Your task to perform on an android device: Add dell xps to the cart on ebay, then select checkout. Image 0: 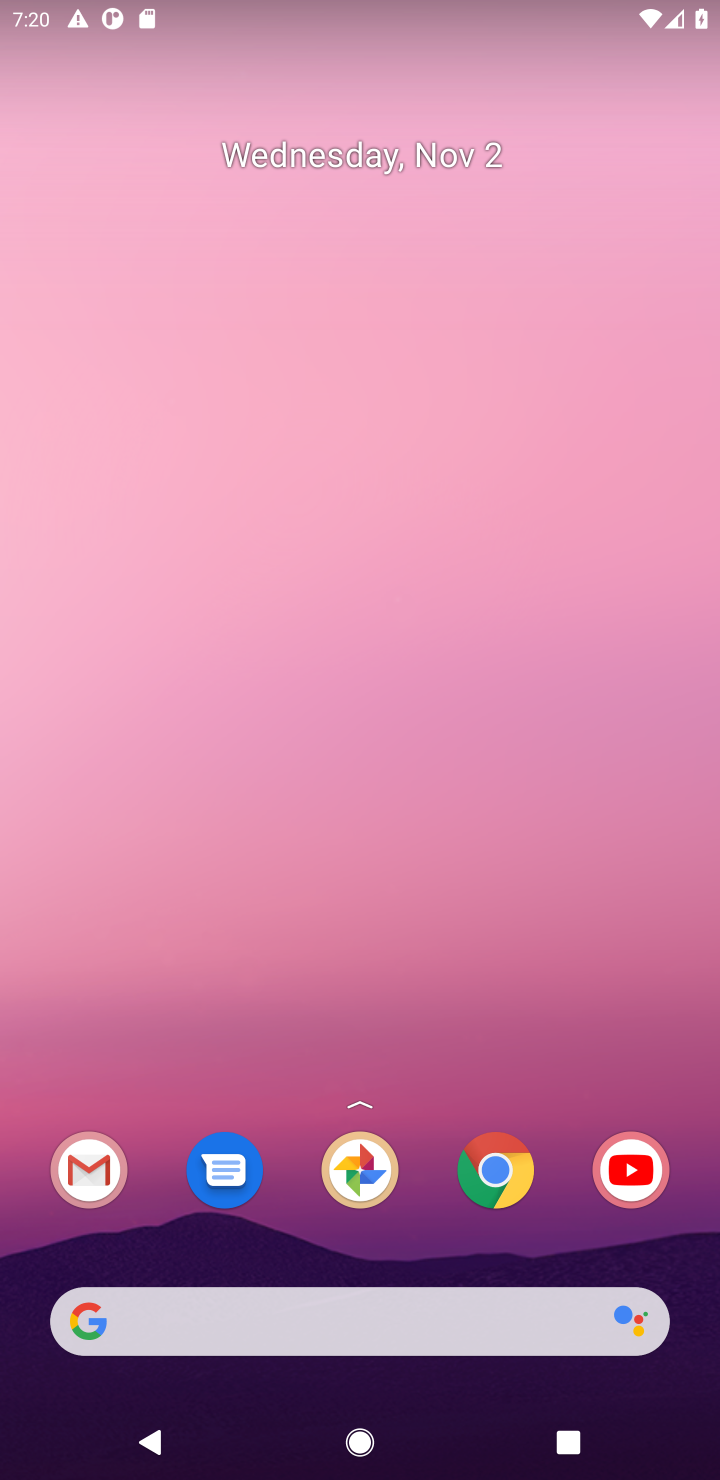
Step 0: click (486, 1191)
Your task to perform on an android device: Add dell xps to the cart on ebay, then select checkout. Image 1: 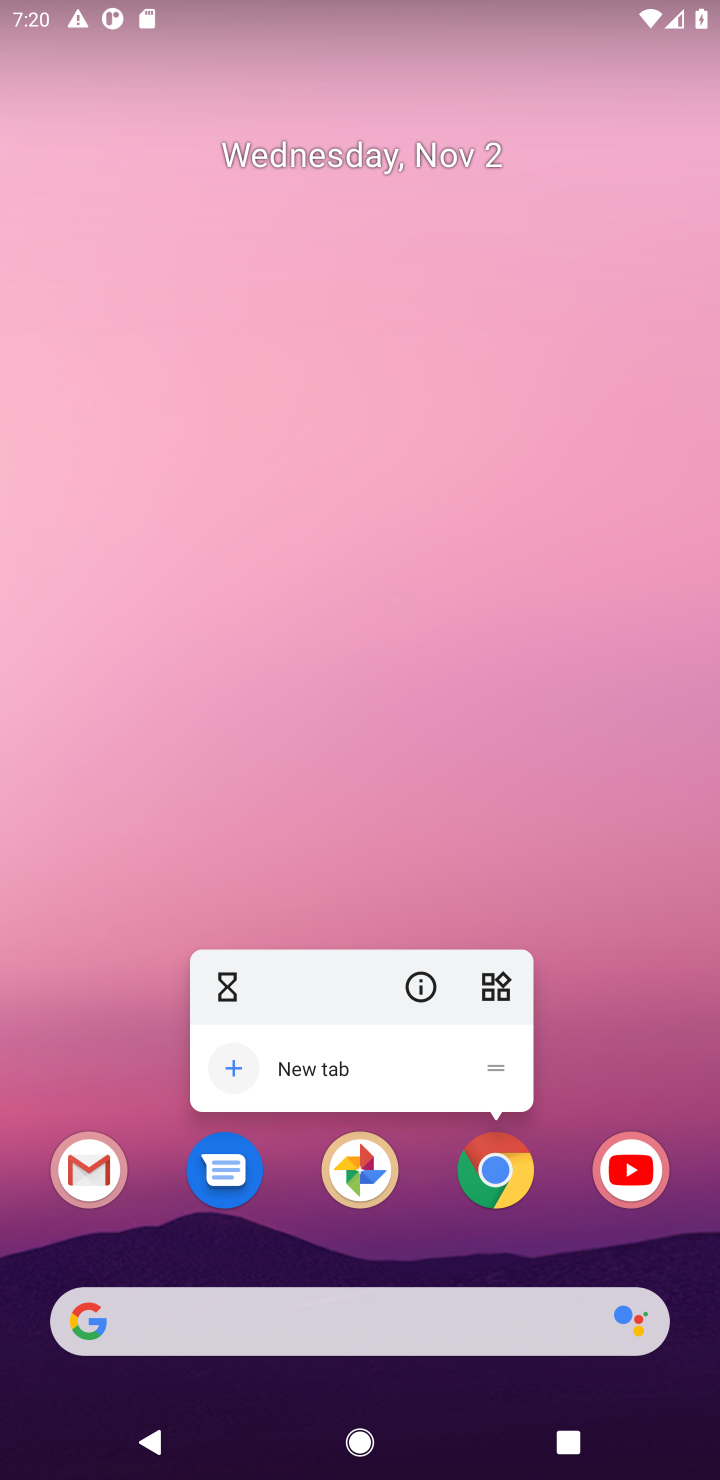
Step 1: click (498, 1197)
Your task to perform on an android device: Add dell xps to the cart on ebay, then select checkout. Image 2: 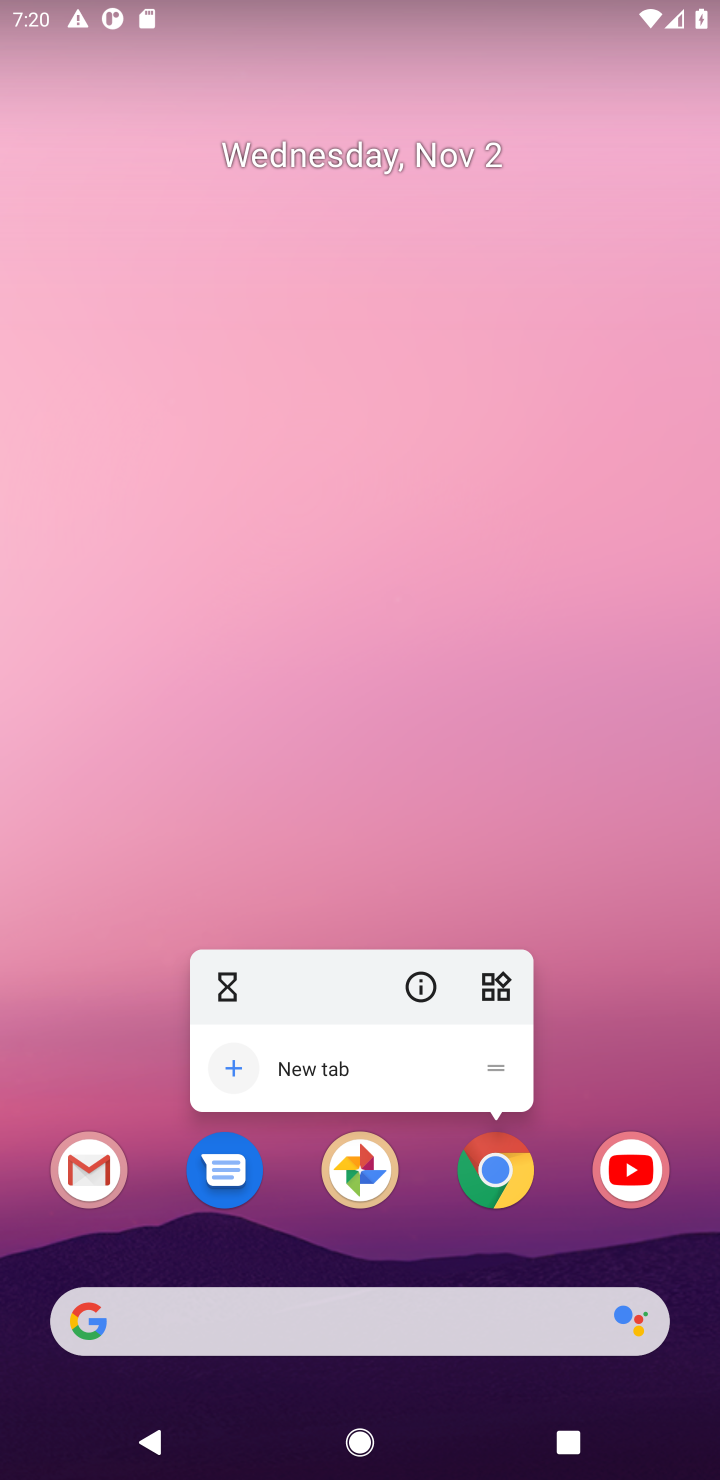
Step 2: click (506, 1172)
Your task to perform on an android device: Add dell xps to the cart on ebay, then select checkout. Image 3: 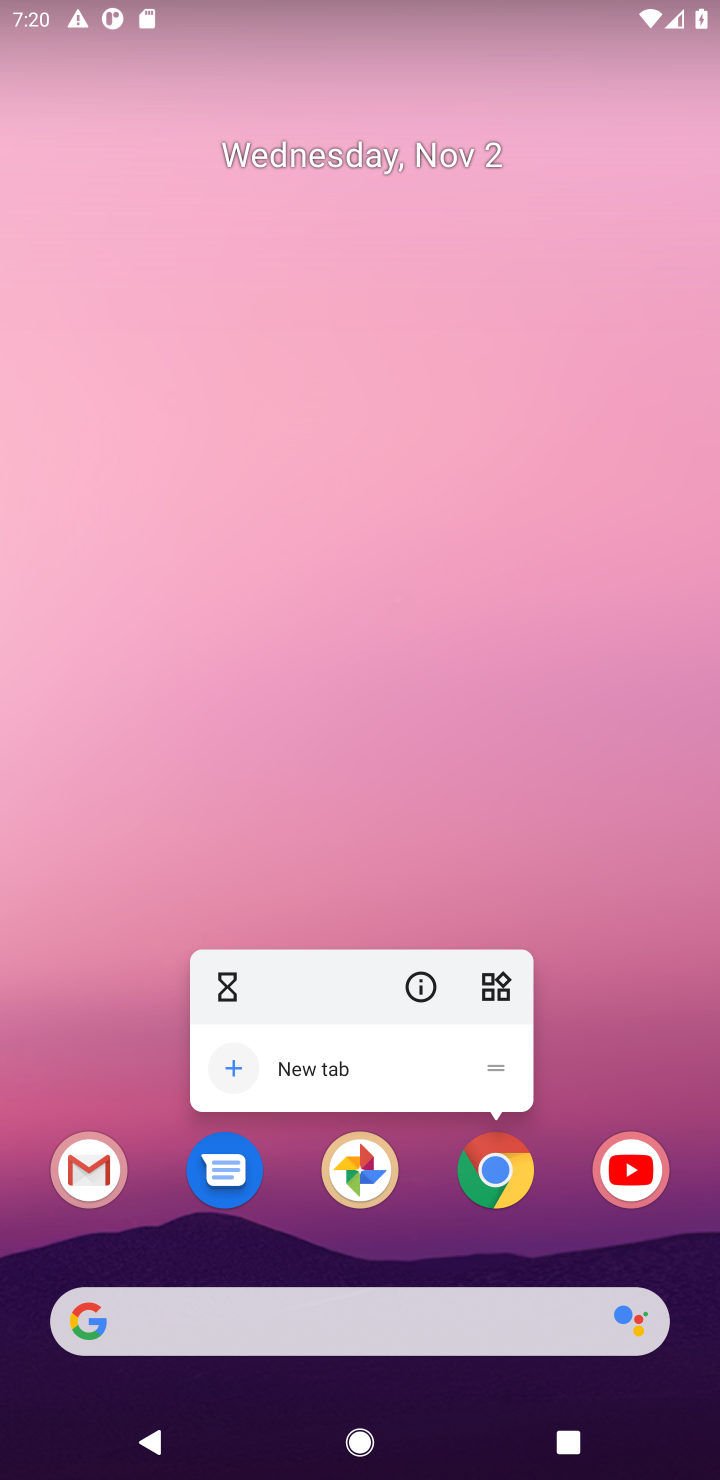
Step 3: click (514, 1182)
Your task to perform on an android device: Add dell xps to the cart on ebay, then select checkout. Image 4: 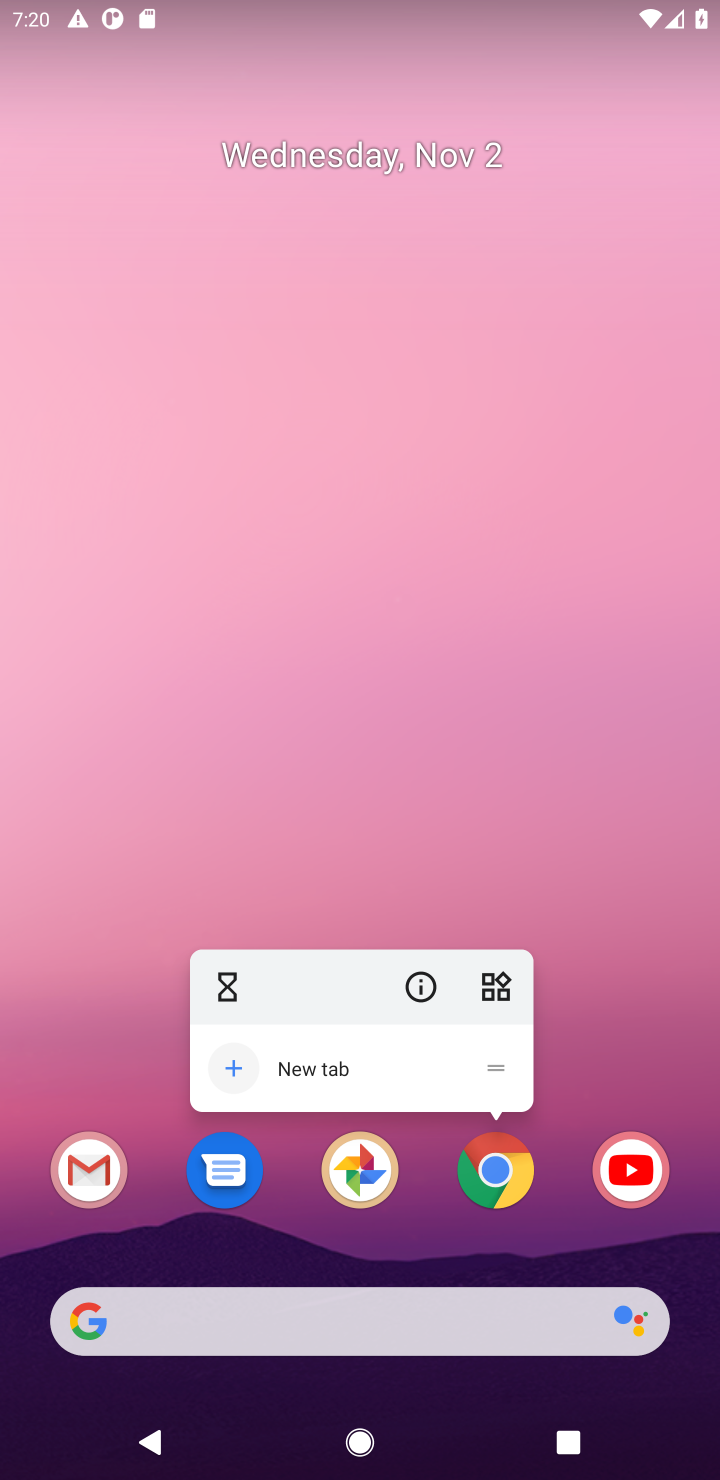
Step 4: click (488, 1199)
Your task to perform on an android device: Add dell xps to the cart on ebay, then select checkout. Image 5: 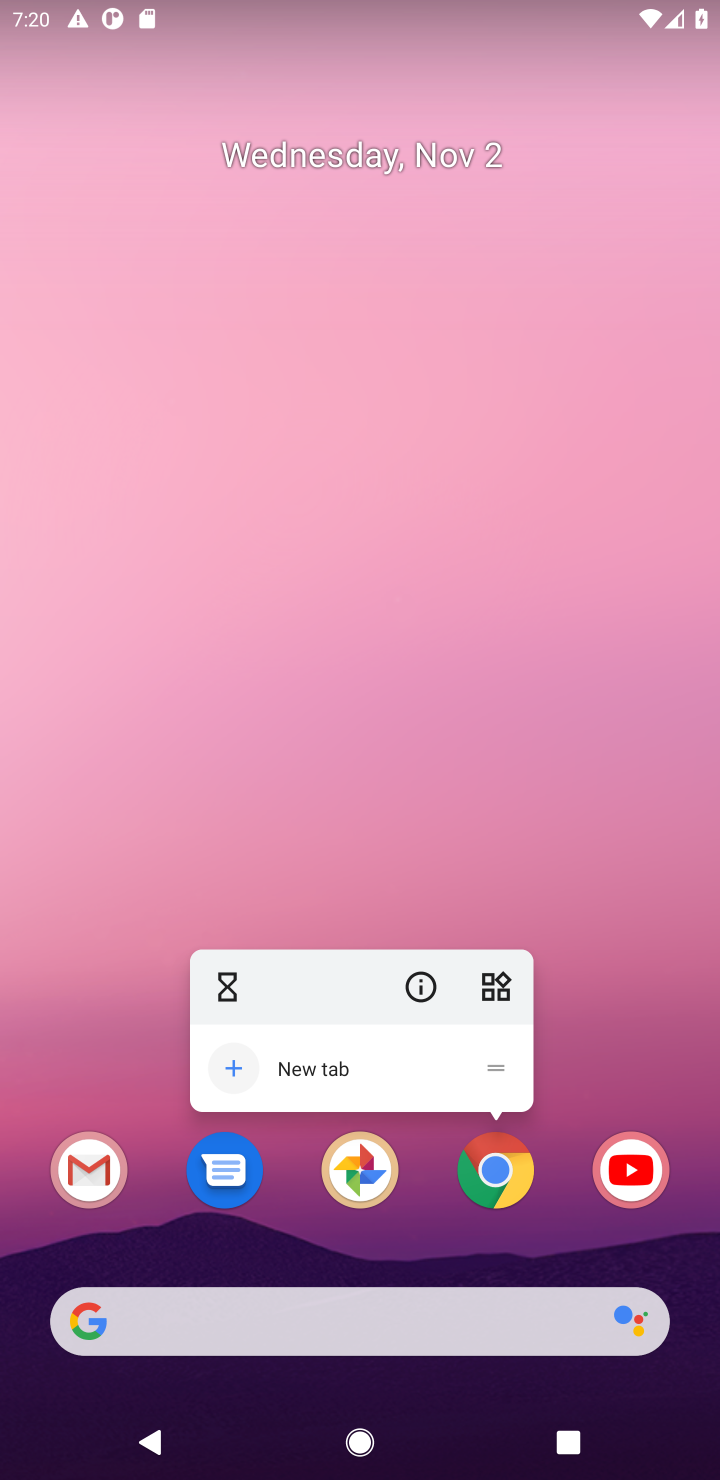
Step 5: click (499, 1176)
Your task to perform on an android device: Add dell xps to the cart on ebay, then select checkout. Image 6: 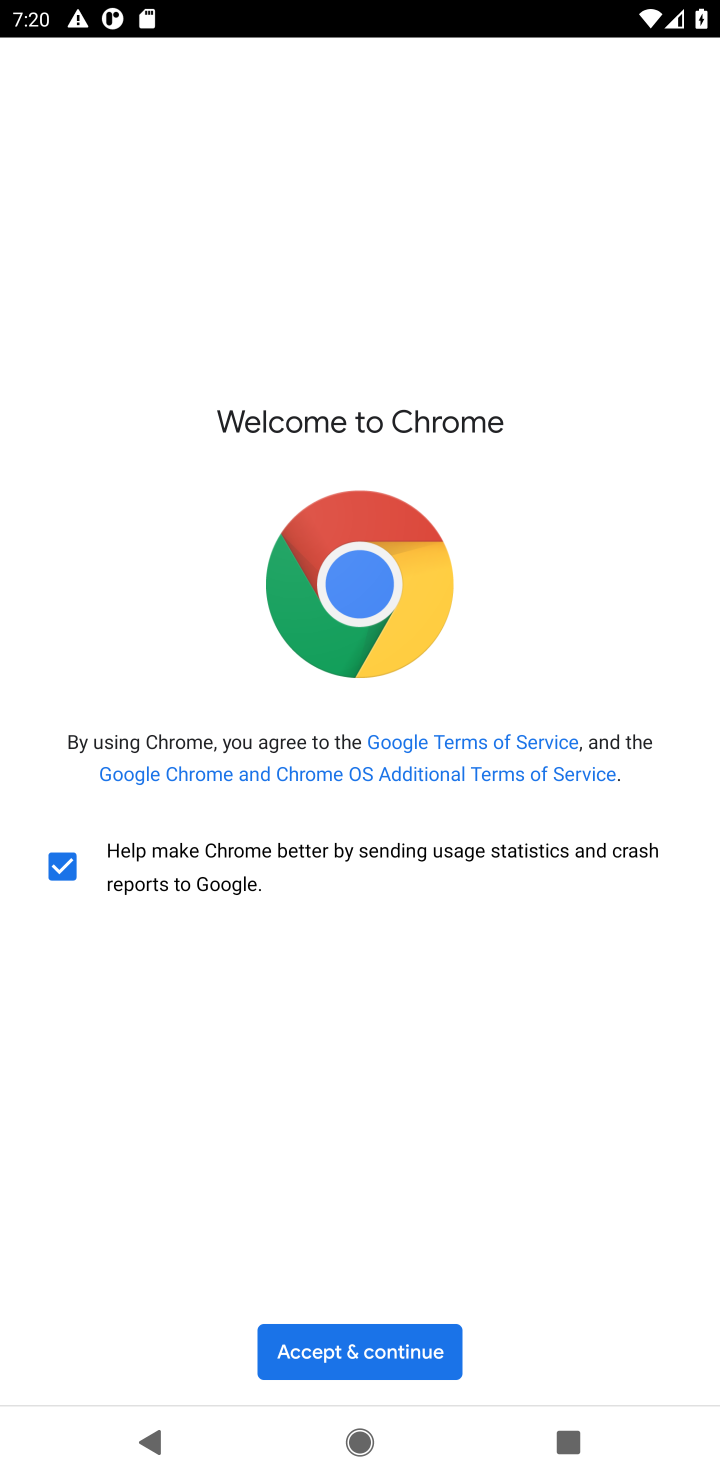
Step 6: click (403, 1346)
Your task to perform on an android device: Add dell xps to the cart on ebay, then select checkout. Image 7: 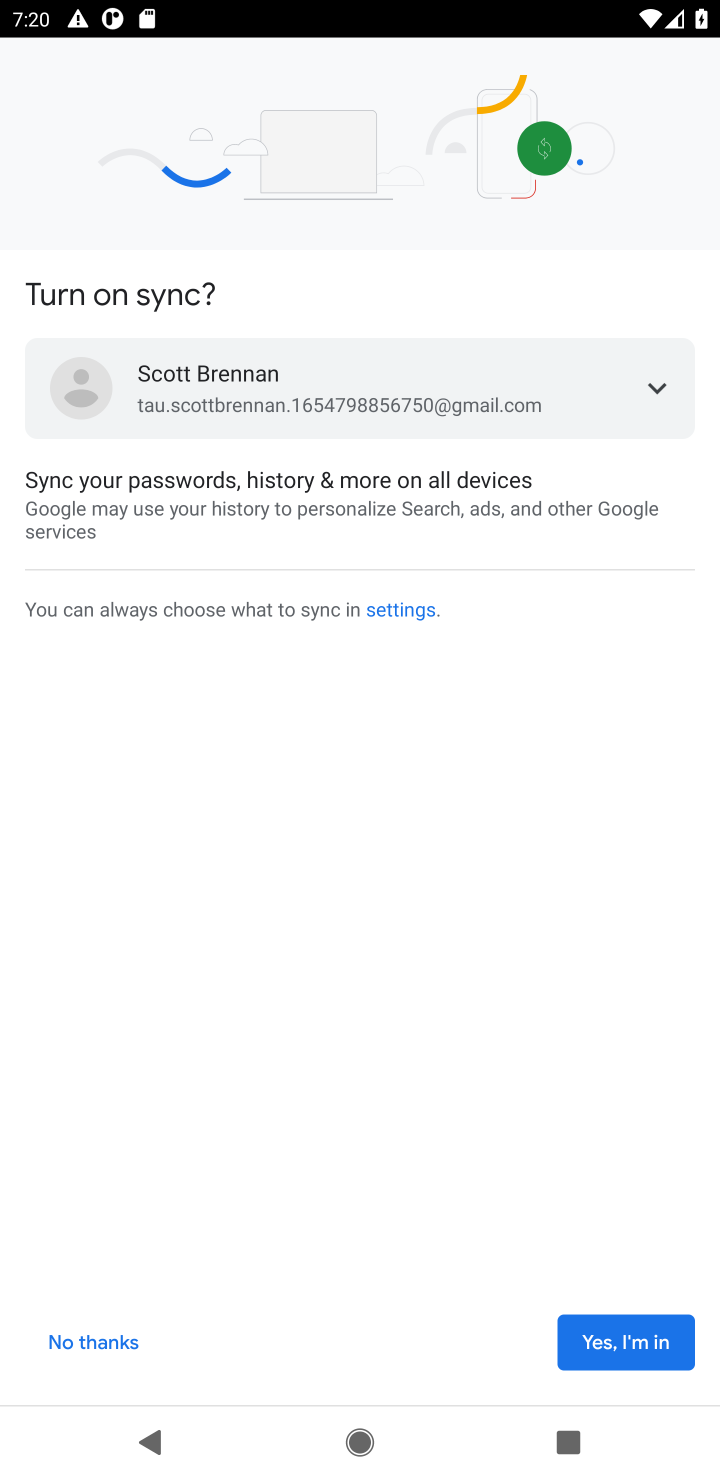
Step 7: click (657, 1337)
Your task to perform on an android device: Add dell xps to the cart on ebay, then select checkout. Image 8: 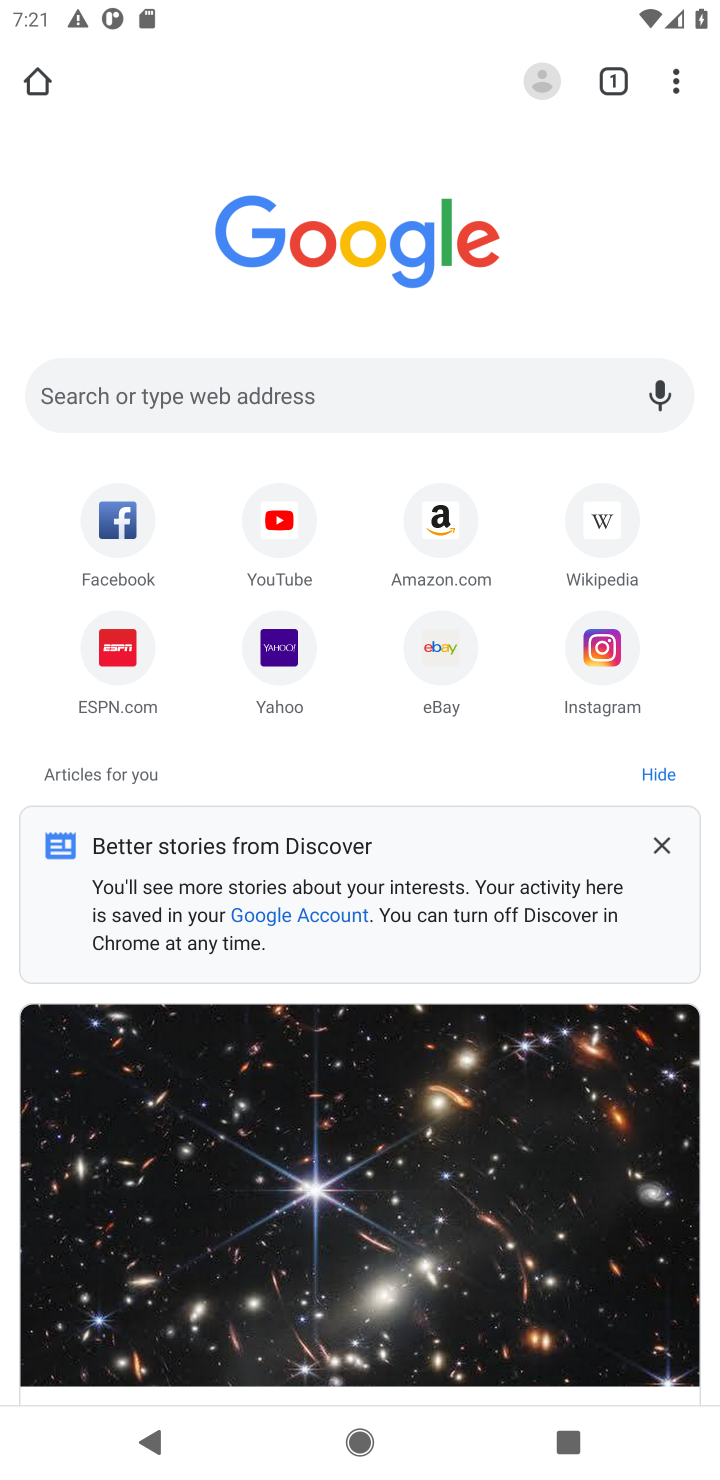
Step 8: click (277, 381)
Your task to perform on an android device: Add dell xps to the cart on ebay, then select checkout. Image 9: 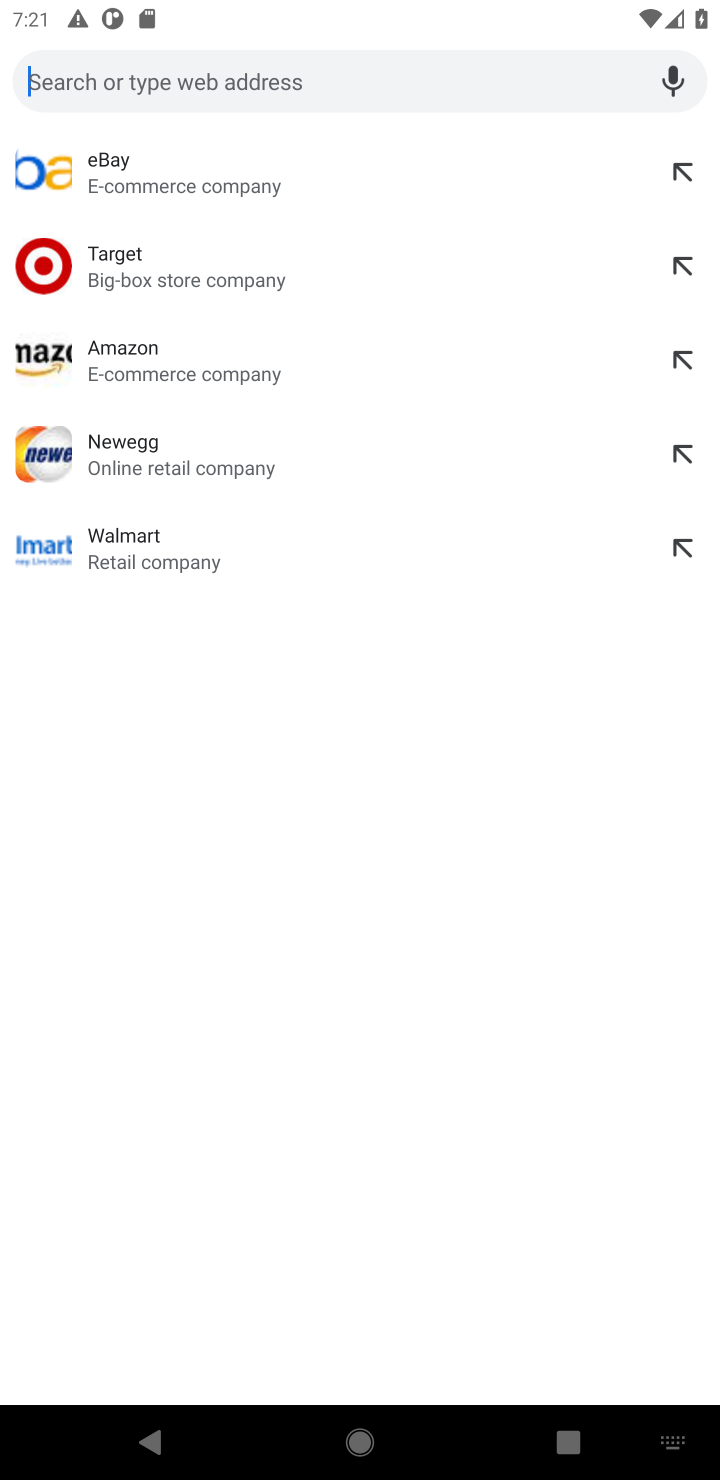
Step 9: type "ebay"
Your task to perform on an android device: Add dell xps to the cart on ebay, then select checkout. Image 10: 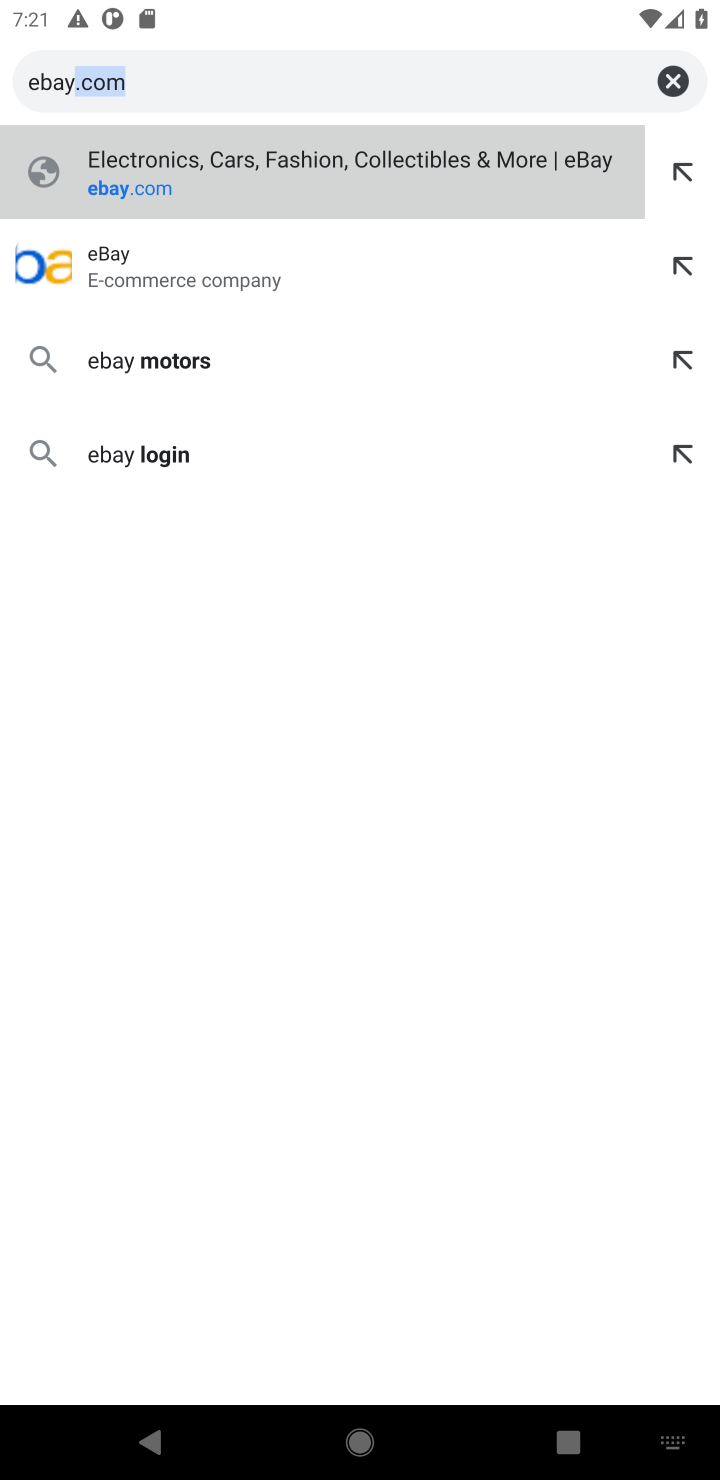
Step 10: type ""
Your task to perform on an android device: Add dell xps to the cart on ebay, then select checkout. Image 11: 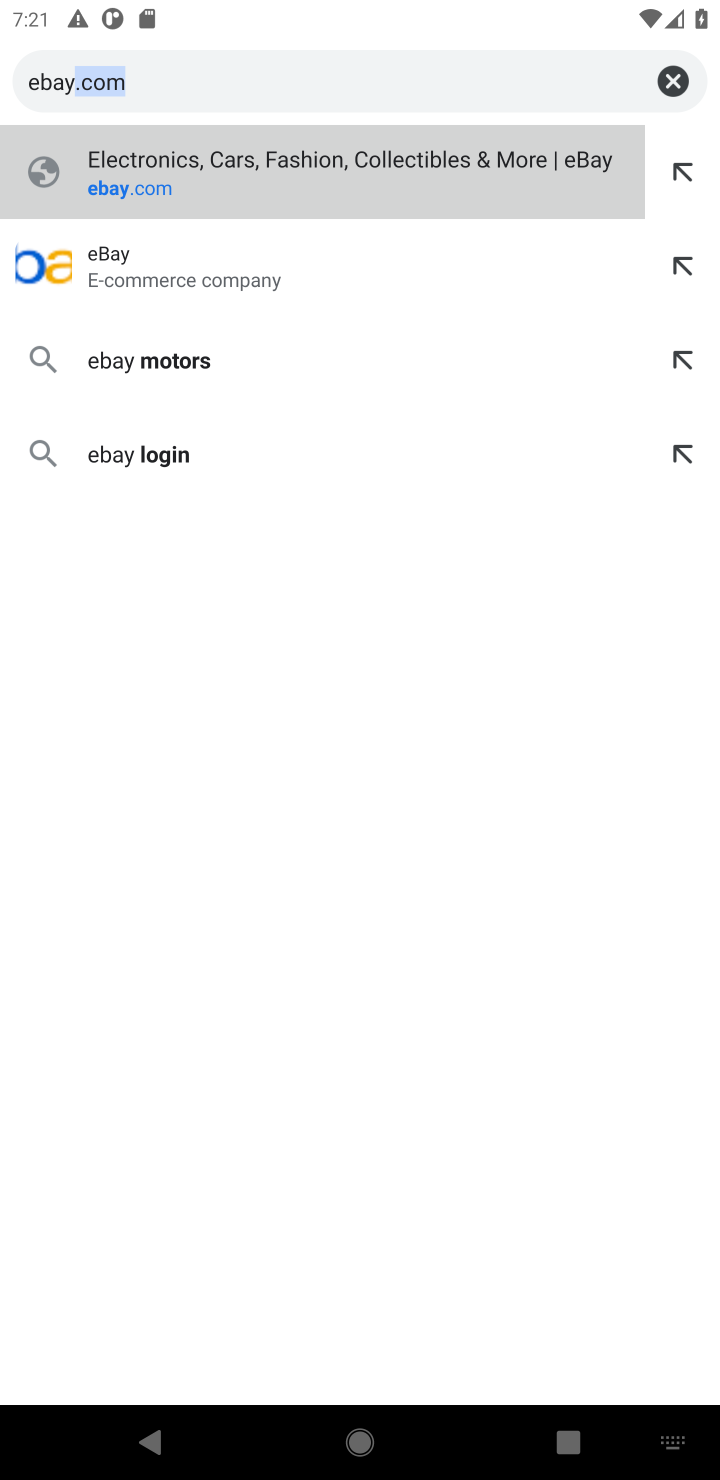
Step 11: press enter
Your task to perform on an android device: Add dell xps to the cart on ebay, then select checkout. Image 12: 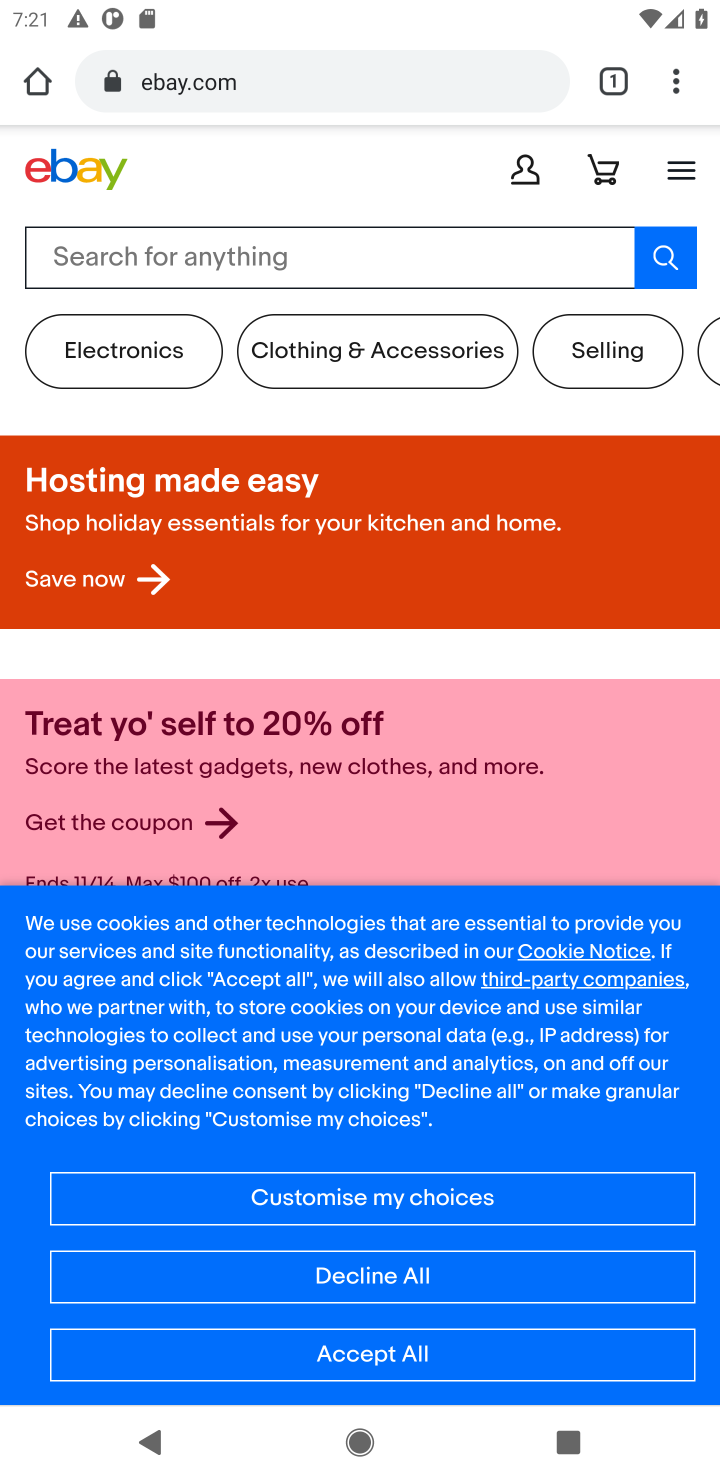
Step 12: click (422, 1355)
Your task to perform on an android device: Add dell xps to the cart on ebay, then select checkout. Image 13: 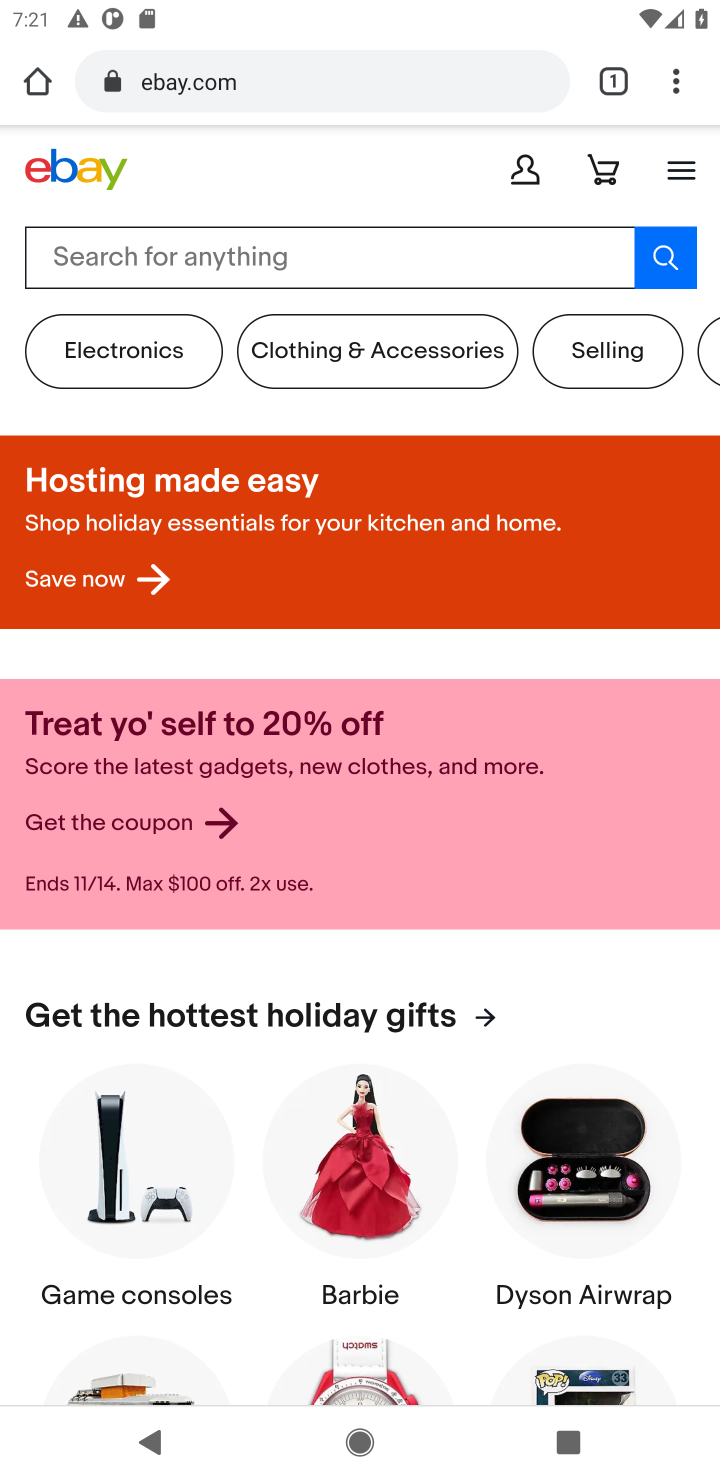
Step 13: click (257, 265)
Your task to perform on an android device: Add dell xps to the cart on ebay, then select checkout. Image 14: 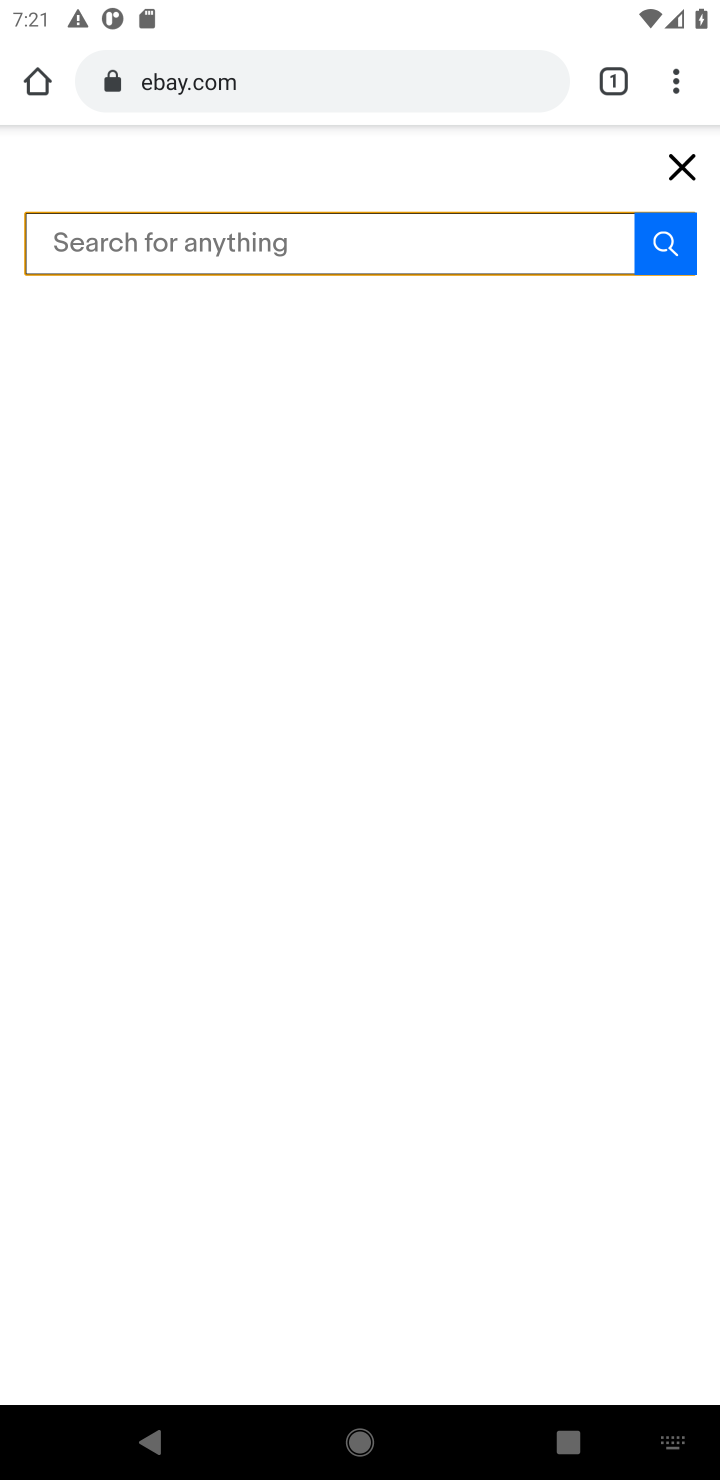
Step 14: type "dell xps"
Your task to perform on an android device: Add dell xps to the cart on ebay, then select checkout. Image 15: 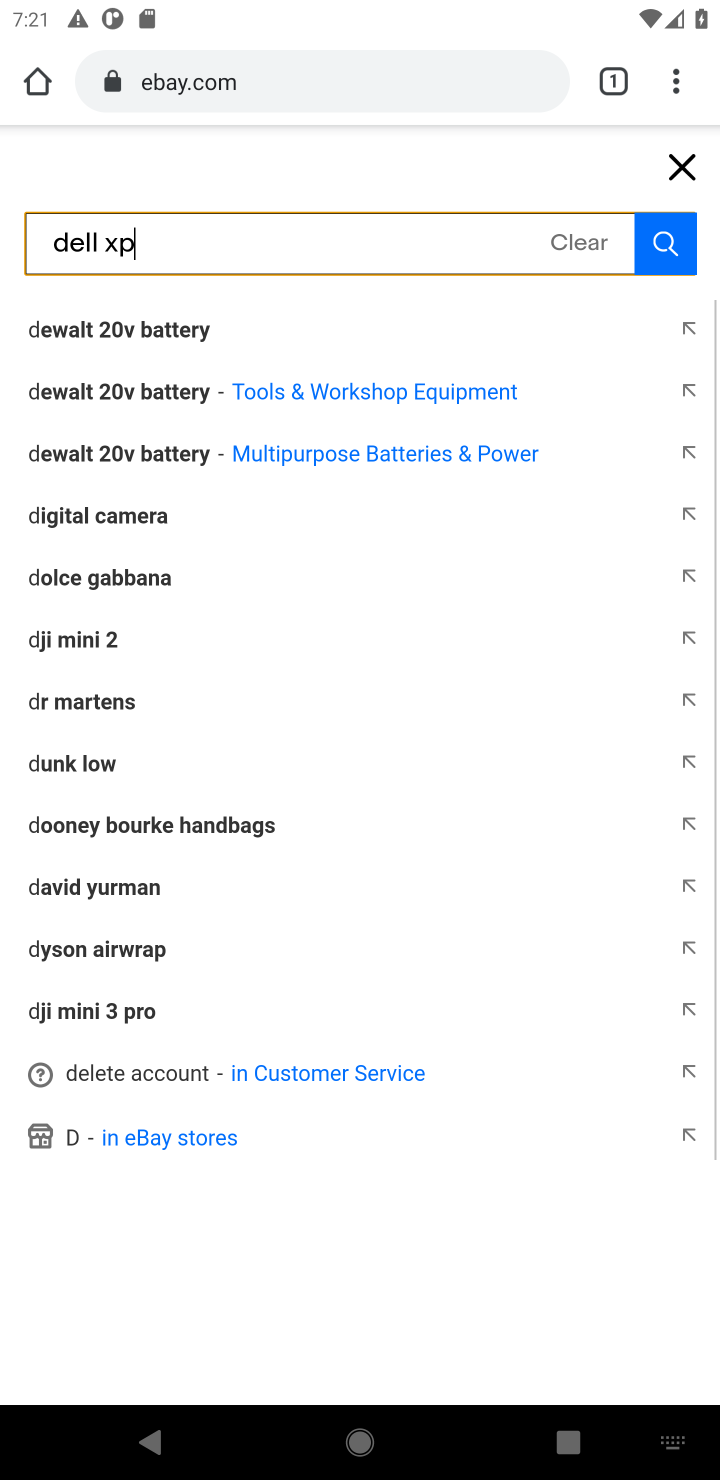
Step 15: type ""
Your task to perform on an android device: Add dell xps to the cart on ebay, then select checkout. Image 16: 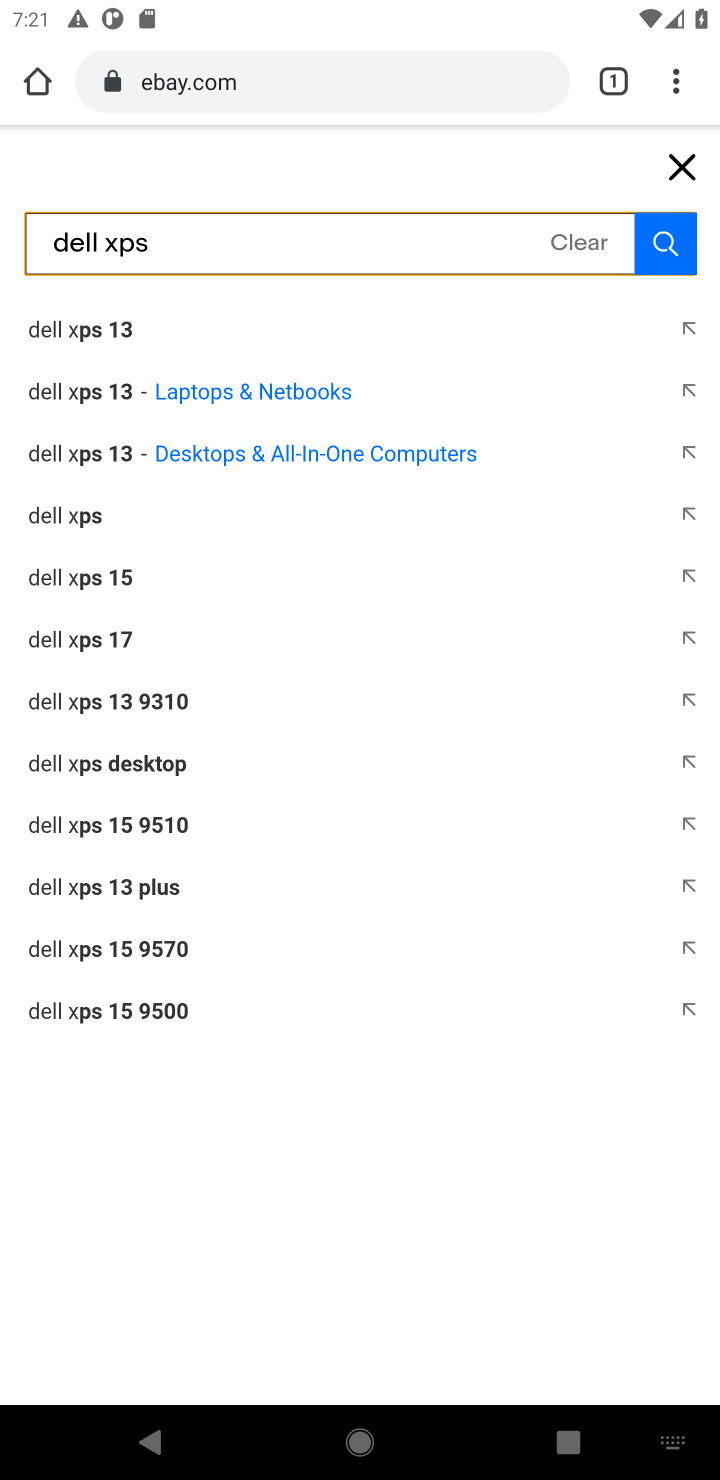
Step 16: press enter
Your task to perform on an android device: Add dell xps to the cart on ebay, then select checkout. Image 17: 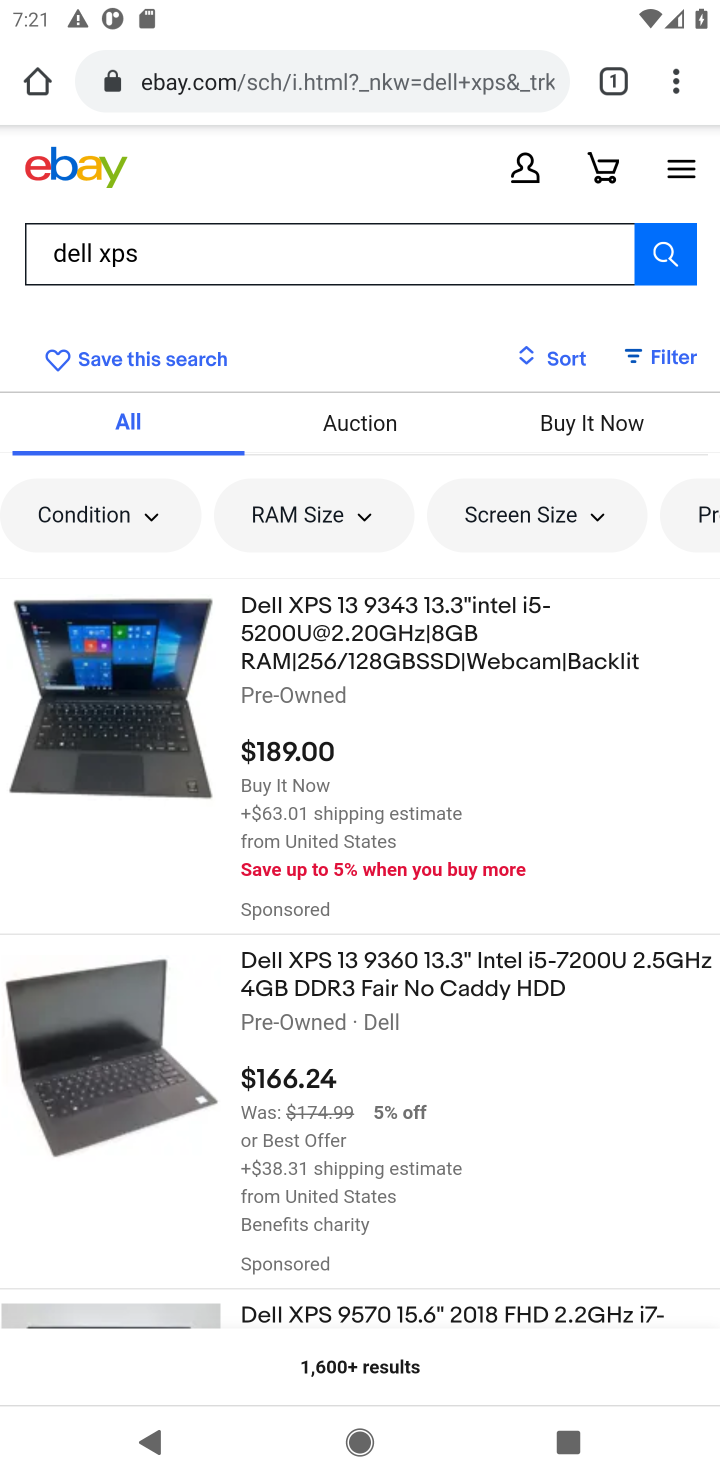
Step 17: click (359, 640)
Your task to perform on an android device: Add dell xps to the cart on ebay, then select checkout. Image 18: 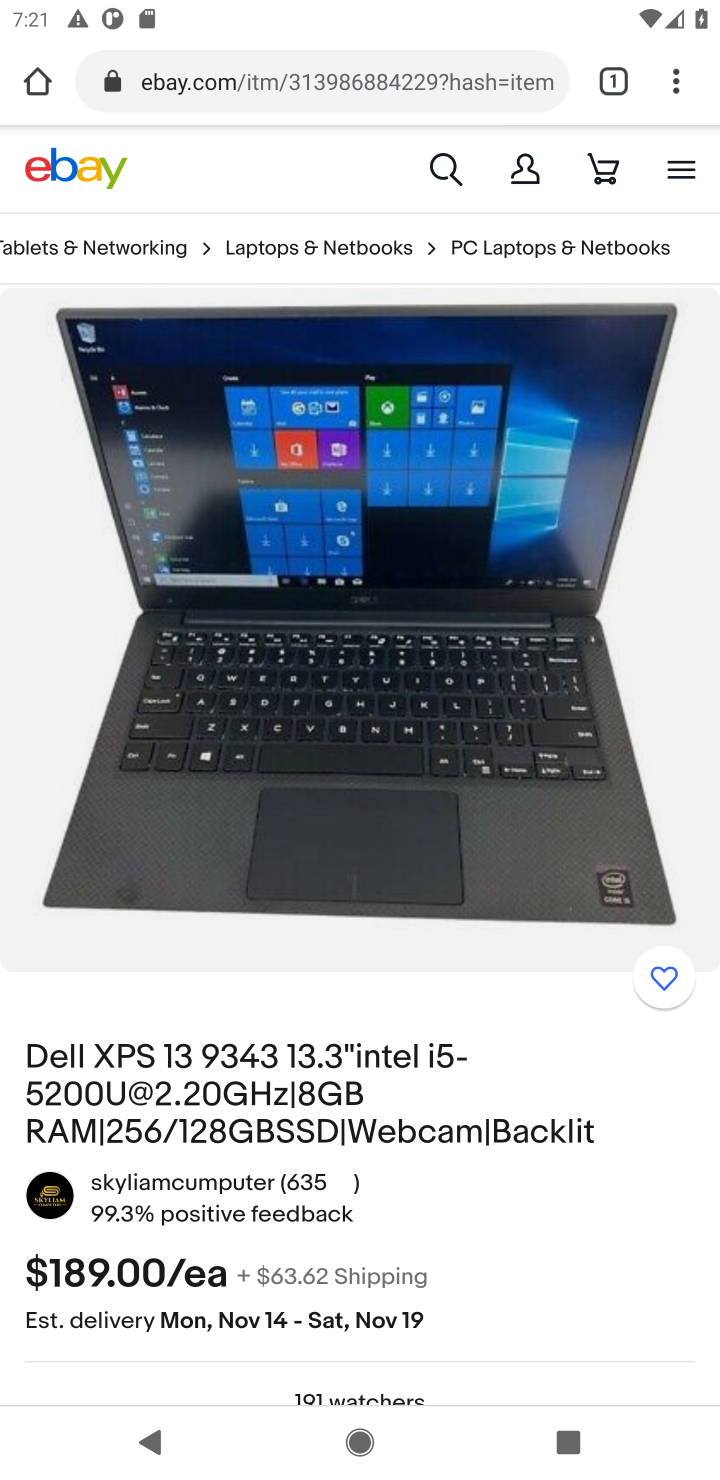
Step 18: drag from (431, 1156) to (211, 307)
Your task to perform on an android device: Add dell xps to the cart on ebay, then select checkout. Image 19: 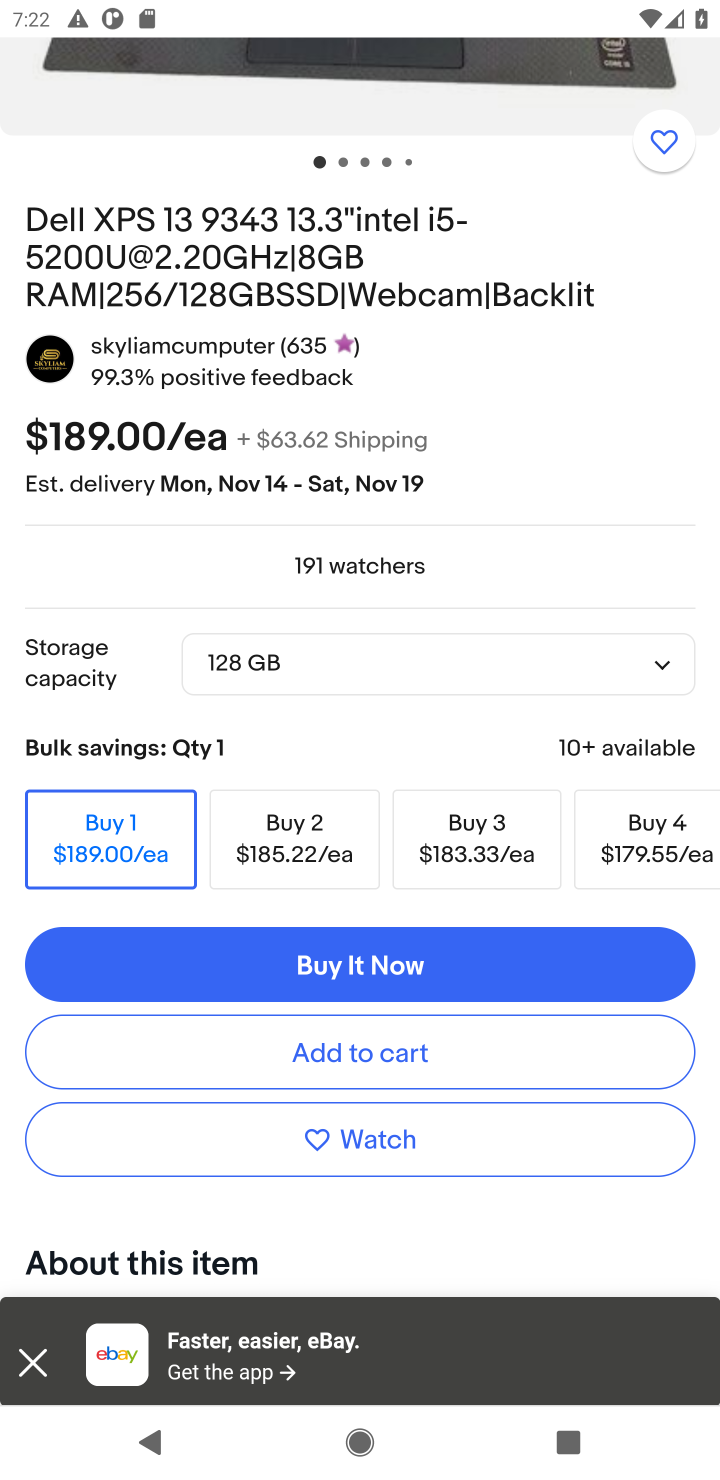
Step 19: click (396, 1052)
Your task to perform on an android device: Add dell xps to the cart on ebay, then select checkout. Image 20: 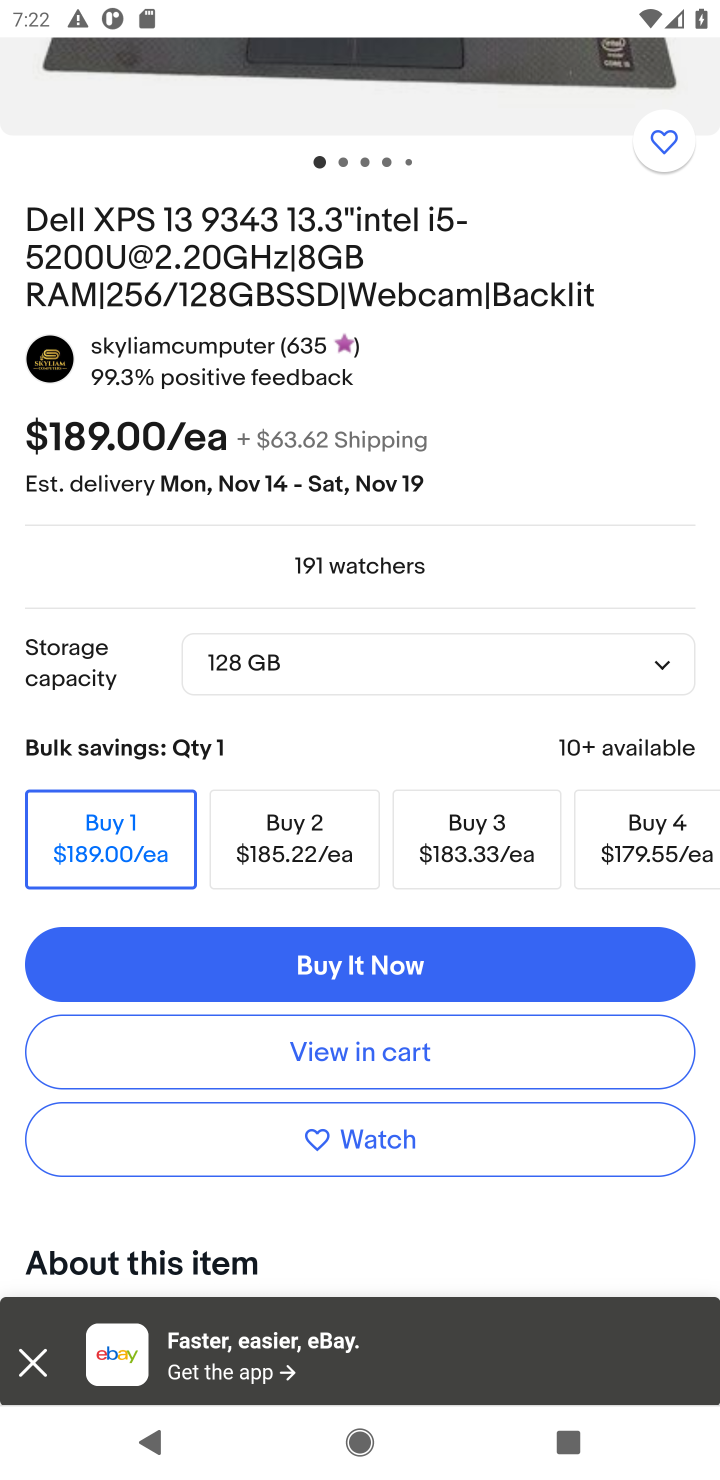
Step 20: click (401, 1052)
Your task to perform on an android device: Add dell xps to the cart on ebay, then select checkout. Image 21: 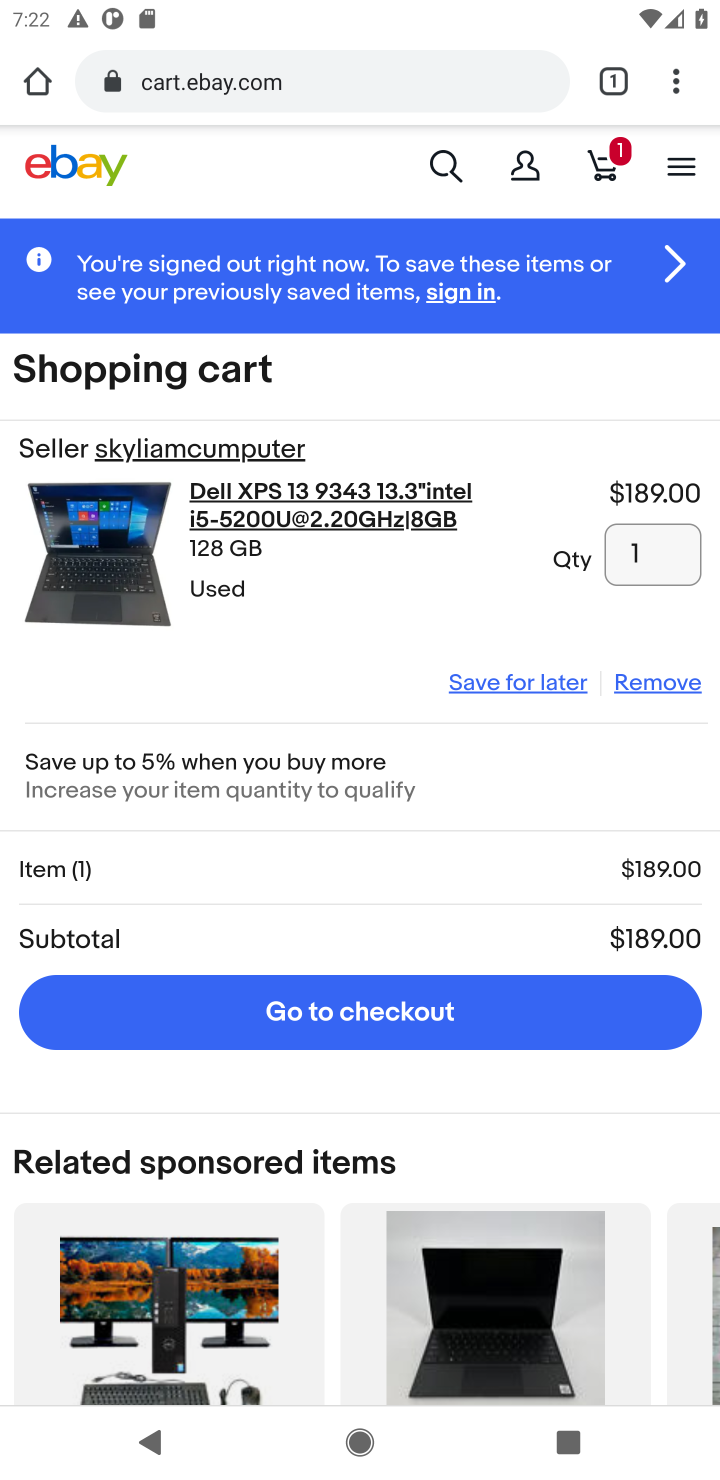
Step 21: click (421, 1029)
Your task to perform on an android device: Add dell xps to the cart on ebay, then select checkout. Image 22: 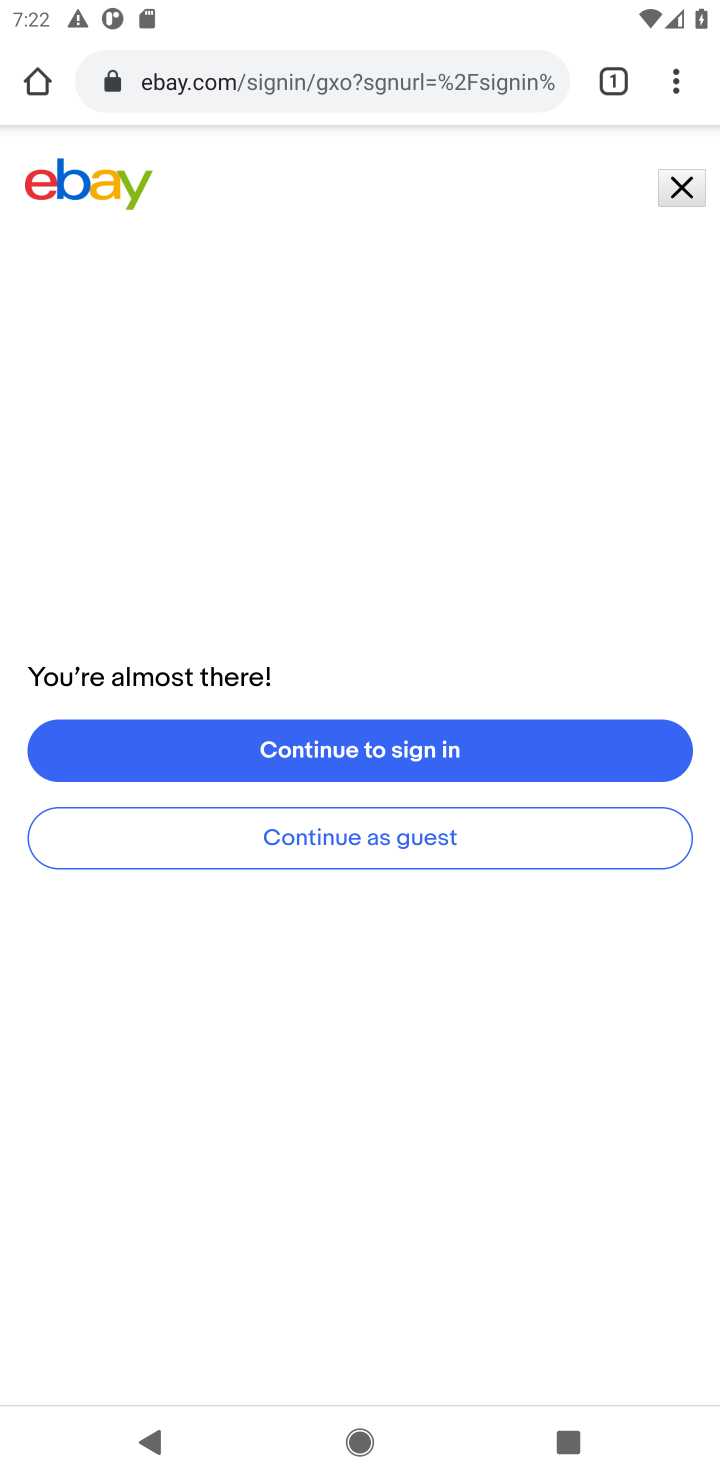
Step 22: click (441, 829)
Your task to perform on an android device: Add dell xps to the cart on ebay, then select checkout. Image 23: 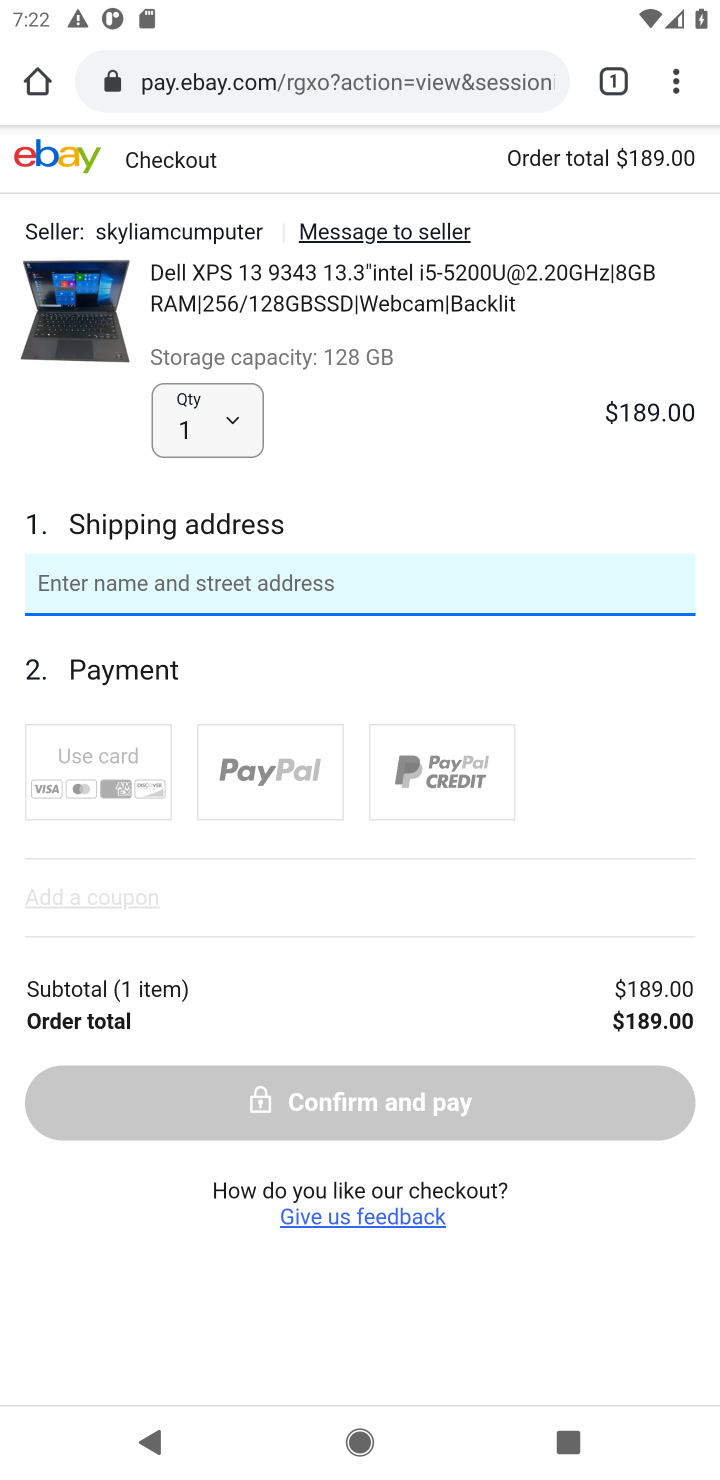
Step 23: task complete